Your task to perform on an android device: make emails show in primary in the gmail app Image 0: 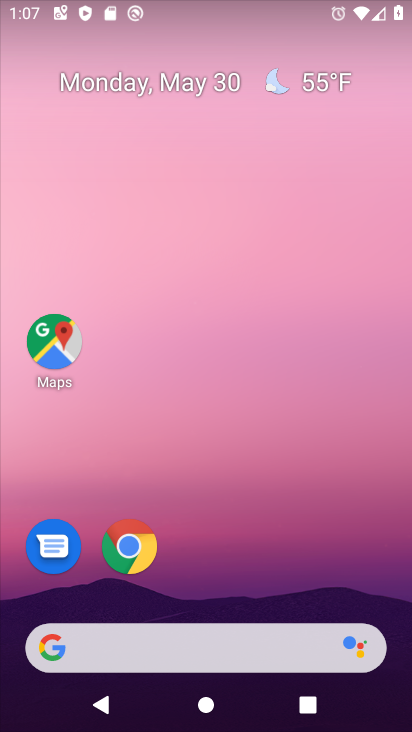
Step 0: press home button
Your task to perform on an android device: make emails show in primary in the gmail app Image 1: 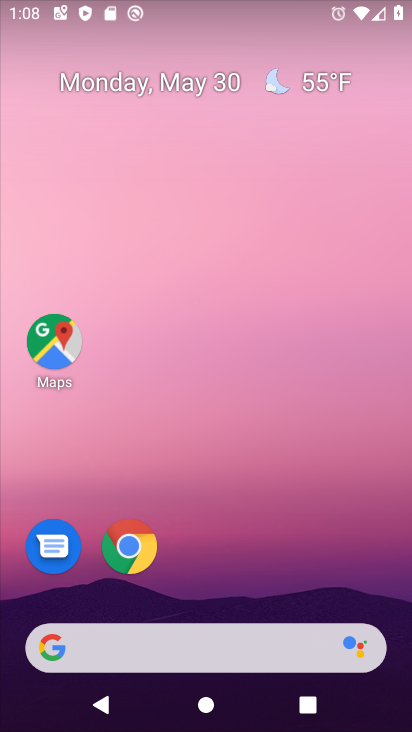
Step 1: drag from (275, 605) to (243, 235)
Your task to perform on an android device: make emails show in primary in the gmail app Image 2: 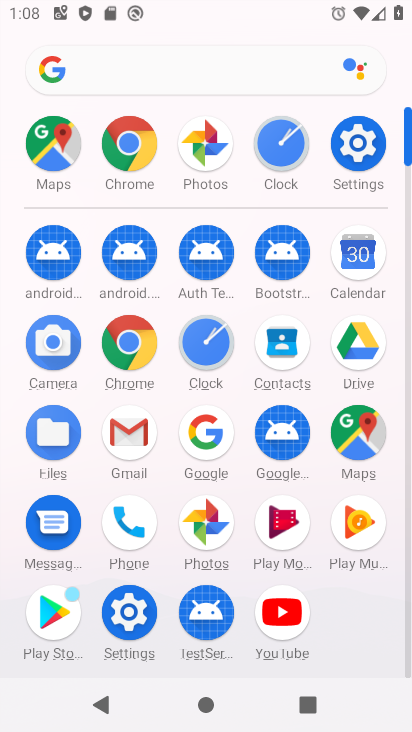
Step 2: click (127, 425)
Your task to perform on an android device: make emails show in primary in the gmail app Image 3: 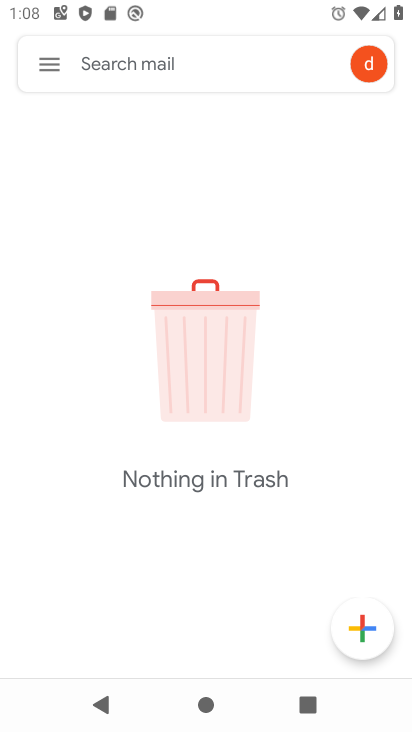
Step 3: click (56, 64)
Your task to perform on an android device: make emails show in primary in the gmail app Image 4: 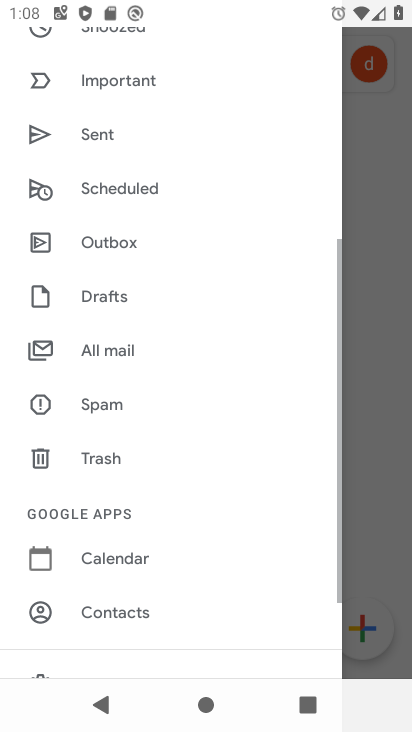
Step 4: drag from (220, 569) to (231, 134)
Your task to perform on an android device: make emails show in primary in the gmail app Image 5: 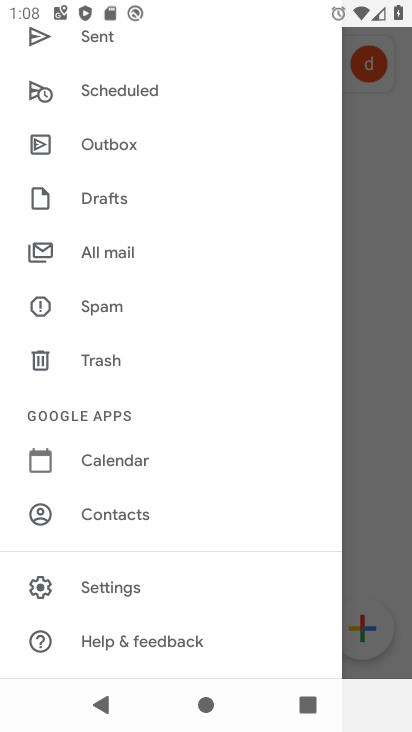
Step 5: click (120, 588)
Your task to perform on an android device: make emails show in primary in the gmail app Image 6: 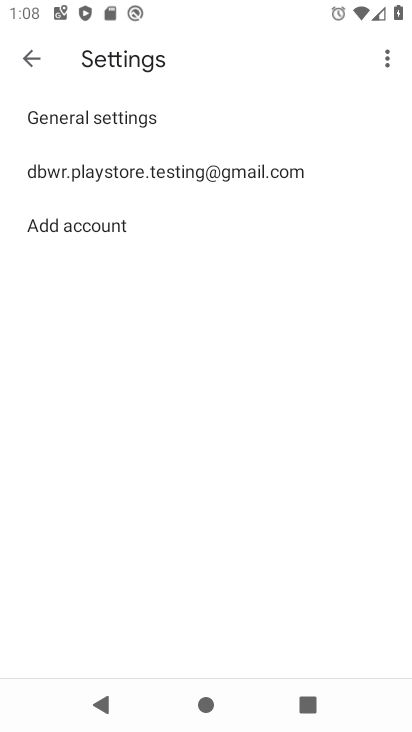
Step 6: click (143, 170)
Your task to perform on an android device: make emails show in primary in the gmail app Image 7: 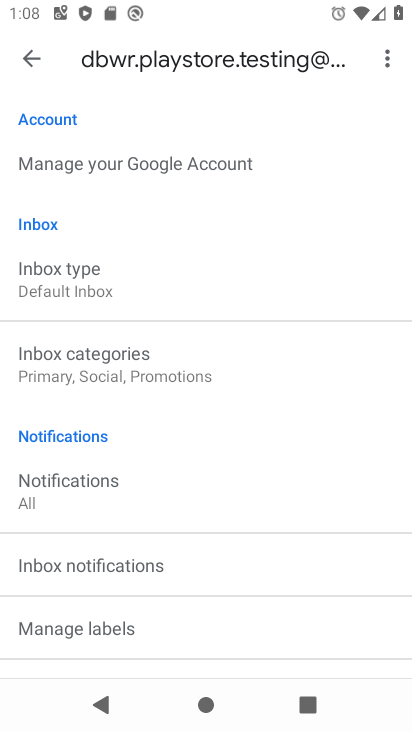
Step 7: click (75, 362)
Your task to perform on an android device: make emails show in primary in the gmail app Image 8: 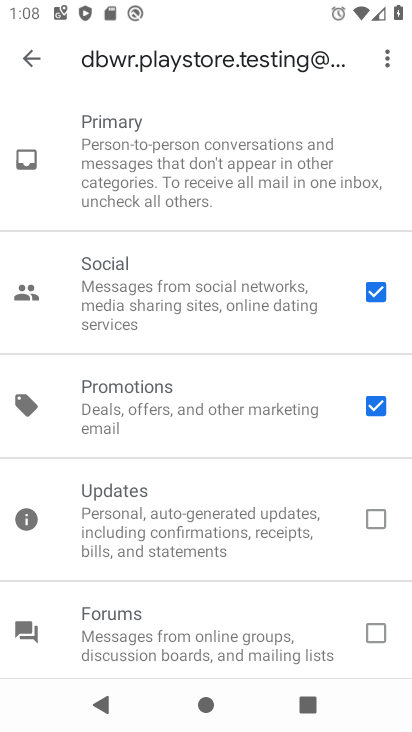
Step 8: click (378, 290)
Your task to perform on an android device: make emails show in primary in the gmail app Image 9: 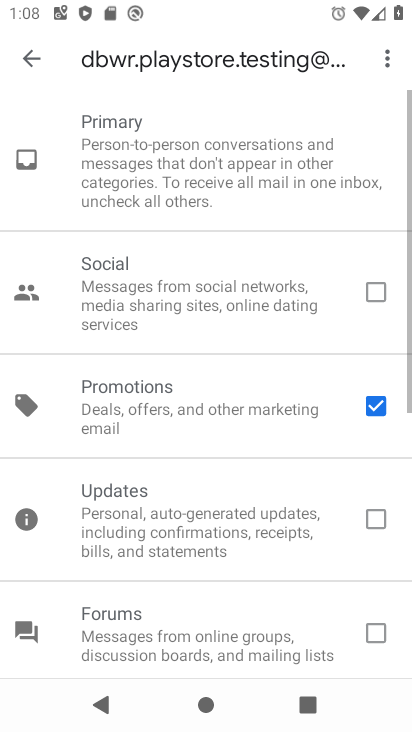
Step 9: click (377, 410)
Your task to perform on an android device: make emails show in primary in the gmail app Image 10: 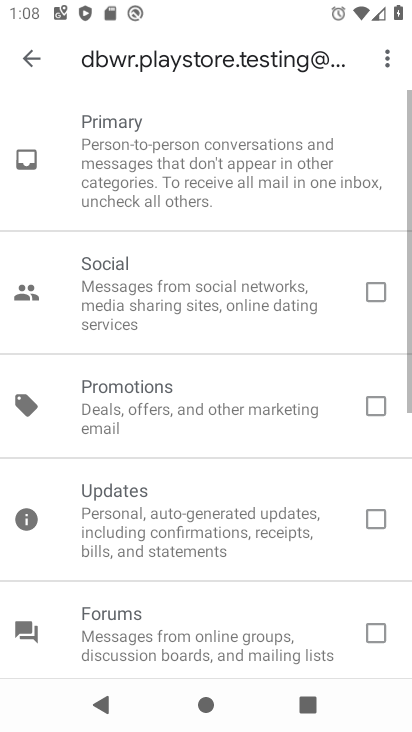
Step 10: drag from (253, 576) to (251, 12)
Your task to perform on an android device: make emails show in primary in the gmail app Image 11: 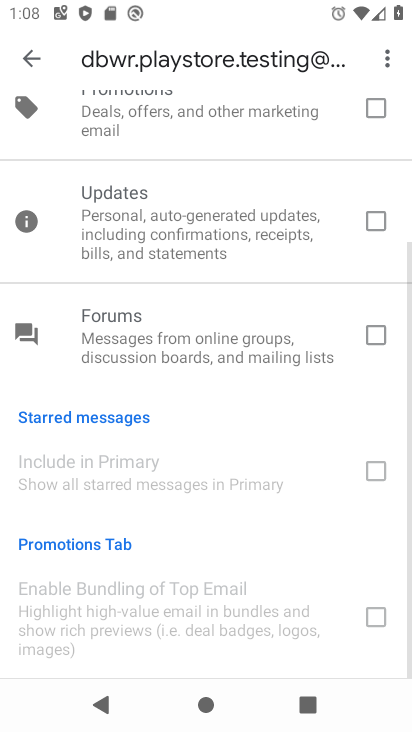
Step 11: drag from (252, 132) to (249, 579)
Your task to perform on an android device: make emails show in primary in the gmail app Image 12: 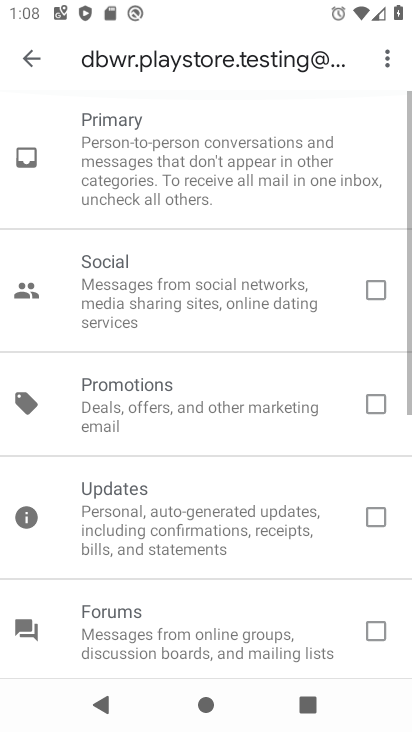
Step 12: click (139, 171)
Your task to perform on an android device: make emails show in primary in the gmail app Image 13: 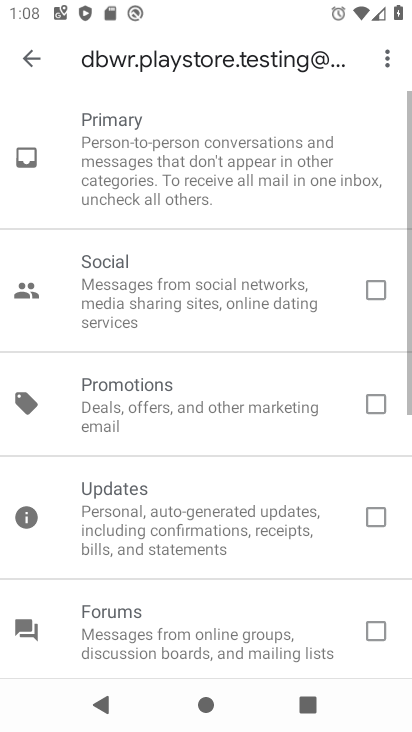
Step 13: task complete